Your task to perform on an android device: turn off improve location accuracy Image 0: 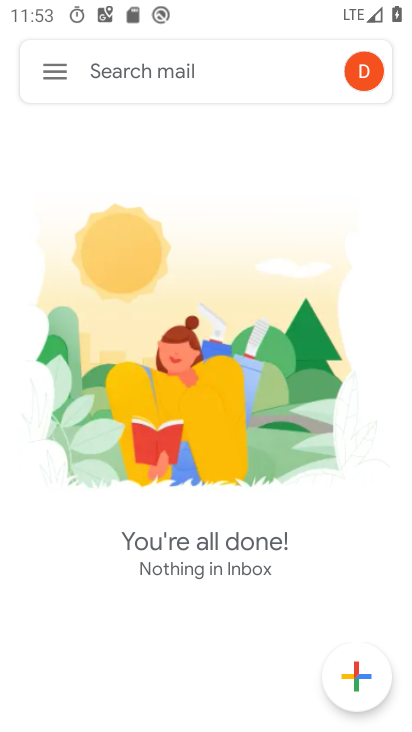
Step 0: press home button
Your task to perform on an android device: turn off improve location accuracy Image 1: 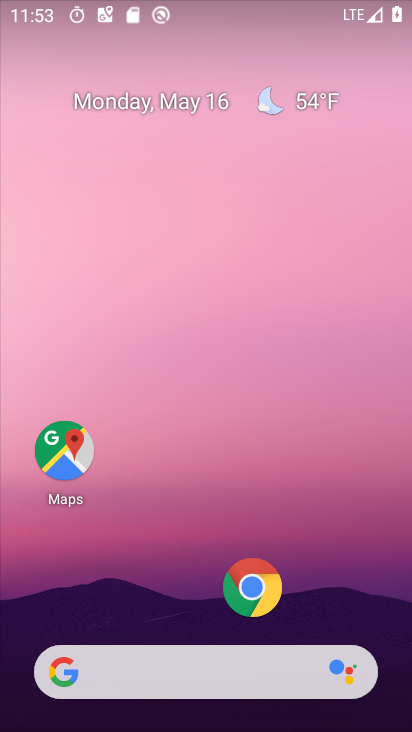
Step 1: drag from (182, 592) to (332, 22)
Your task to perform on an android device: turn off improve location accuracy Image 2: 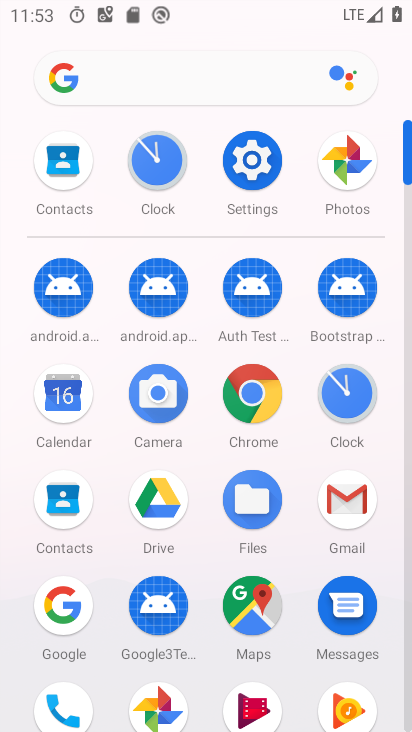
Step 2: click (247, 182)
Your task to perform on an android device: turn off improve location accuracy Image 3: 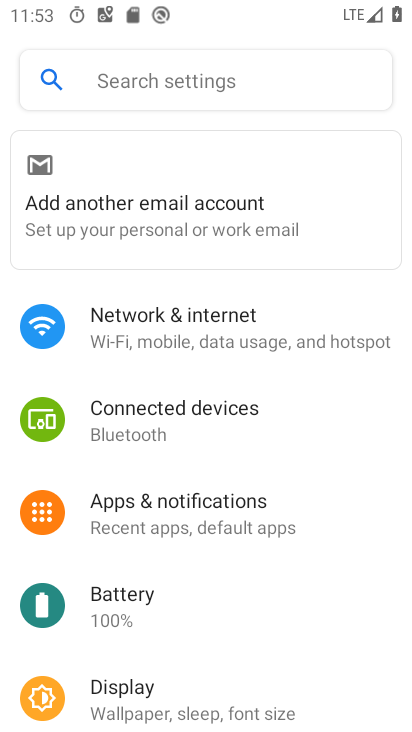
Step 3: drag from (277, 559) to (297, 426)
Your task to perform on an android device: turn off improve location accuracy Image 4: 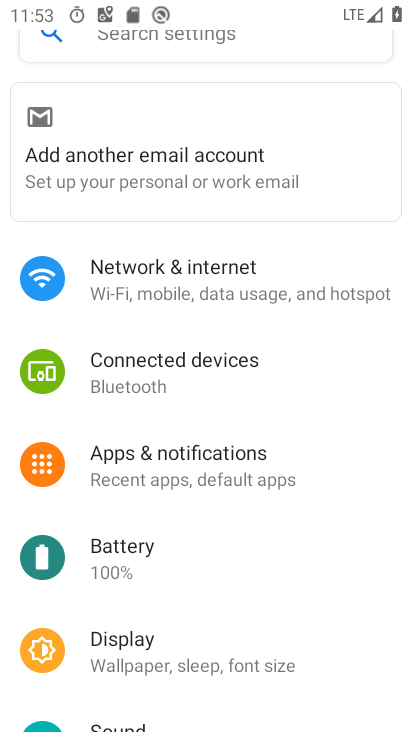
Step 4: drag from (233, 519) to (290, 256)
Your task to perform on an android device: turn off improve location accuracy Image 5: 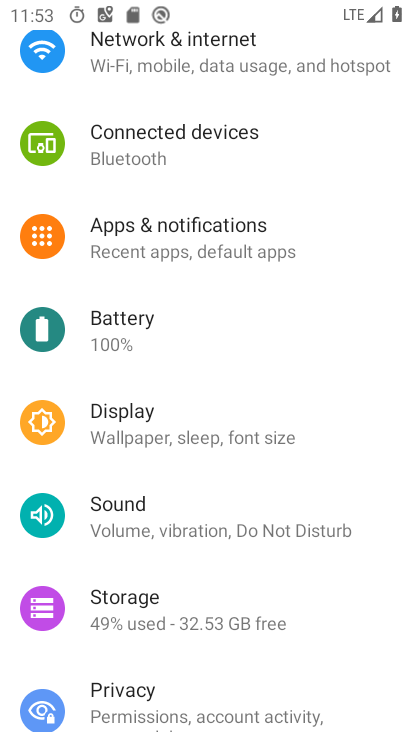
Step 5: drag from (244, 579) to (315, 319)
Your task to perform on an android device: turn off improve location accuracy Image 6: 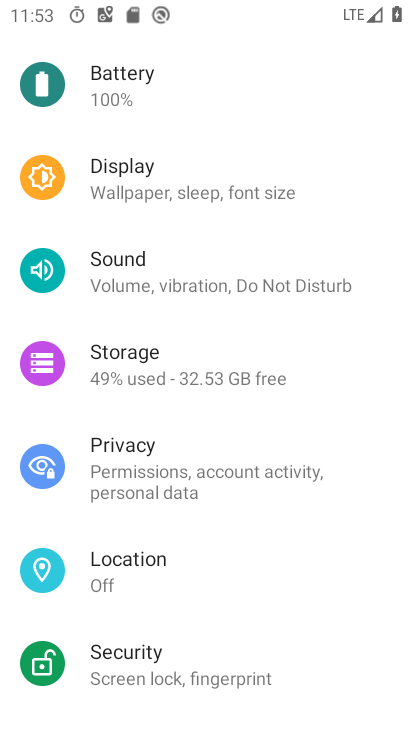
Step 6: click (202, 570)
Your task to perform on an android device: turn off improve location accuracy Image 7: 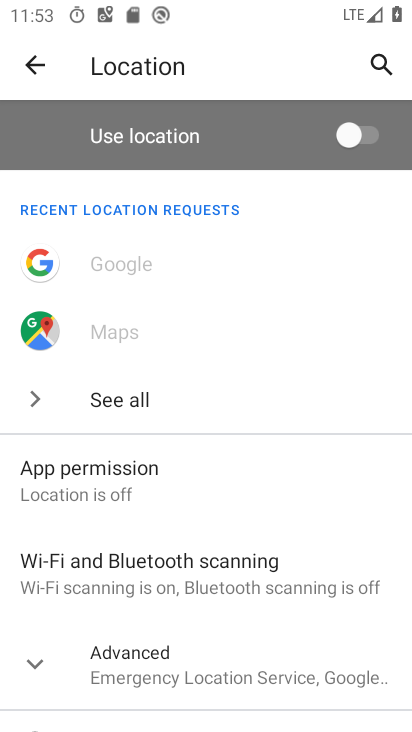
Step 7: drag from (245, 607) to (299, 335)
Your task to perform on an android device: turn off improve location accuracy Image 8: 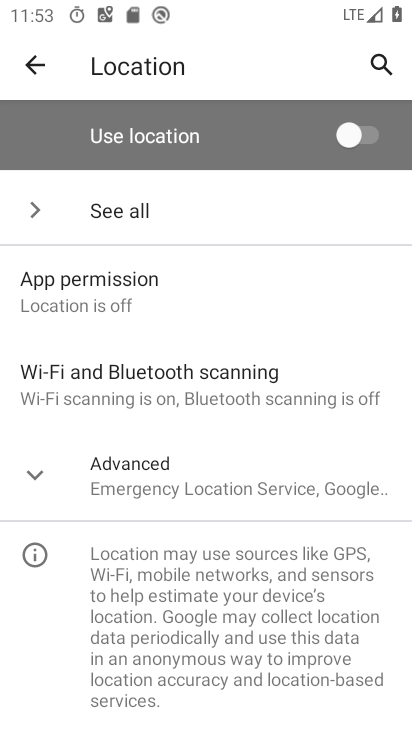
Step 8: click (160, 470)
Your task to perform on an android device: turn off improve location accuracy Image 9: 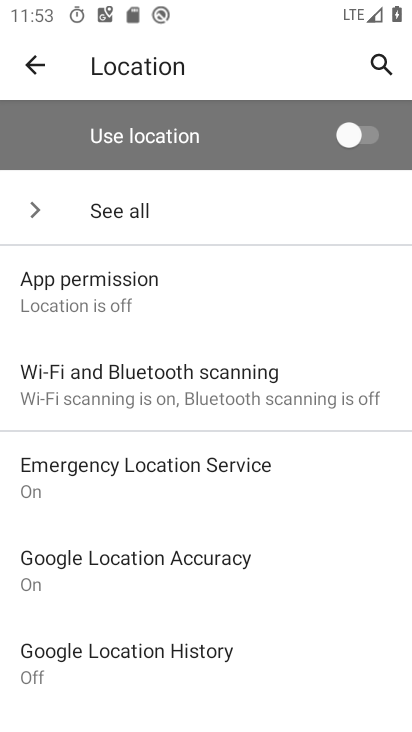
Step 9: click (227, 573)
Your task to perform on an android device: turn off improve location accuracy Image 10: 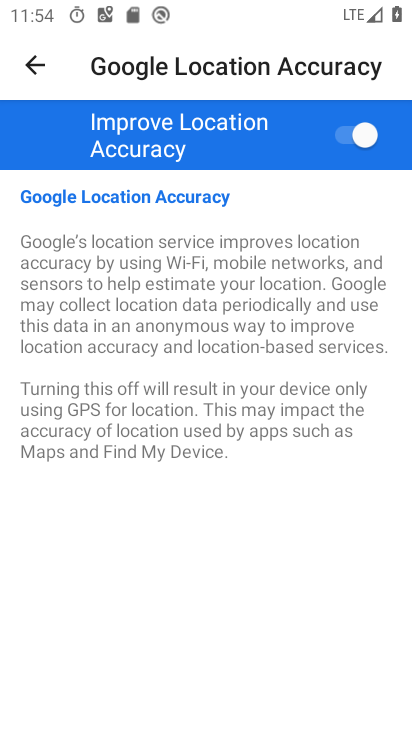
Step 10: click (354, 123)
Your task to perform on an android device: turn off improve location accuracy Image 11: 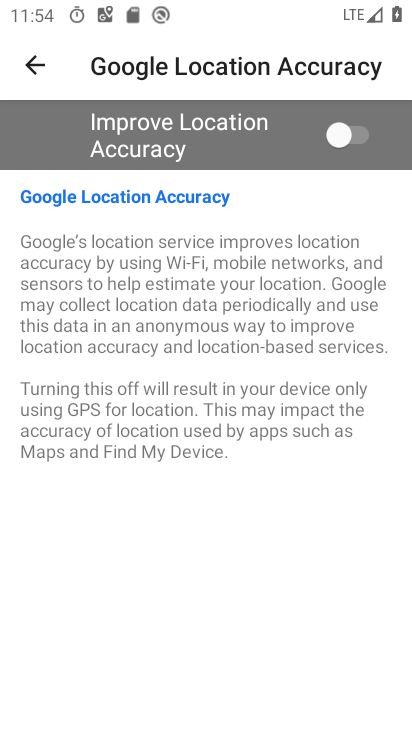
Step 11: task complete